Your task to perform on an android device: turn on showing notifications on the lock screen Image 0: 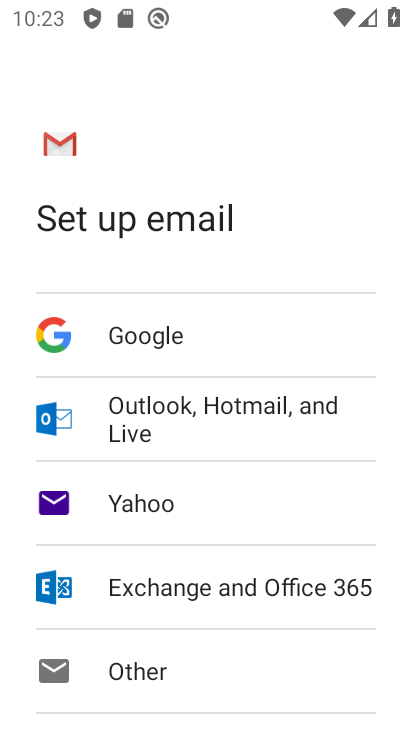
Step 0: press home button
Your task to perform on an android device: turn on showing notifications on the lock screen Image 1: 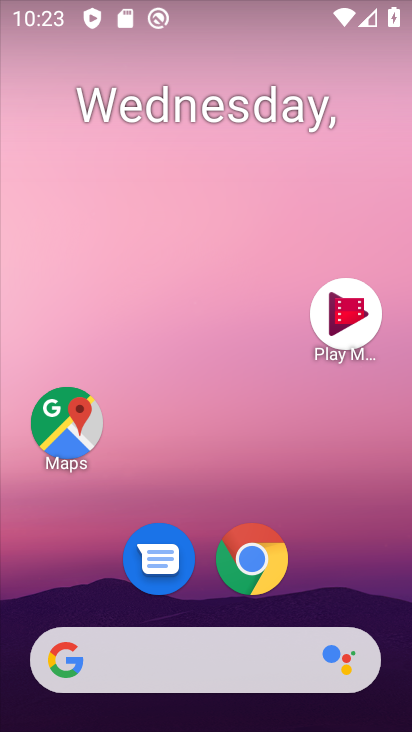
Step 1: drag from (301, 542) to (292, 131)
Your task to perform on an android device: turn on showing notifications on the lock screen Image 2: 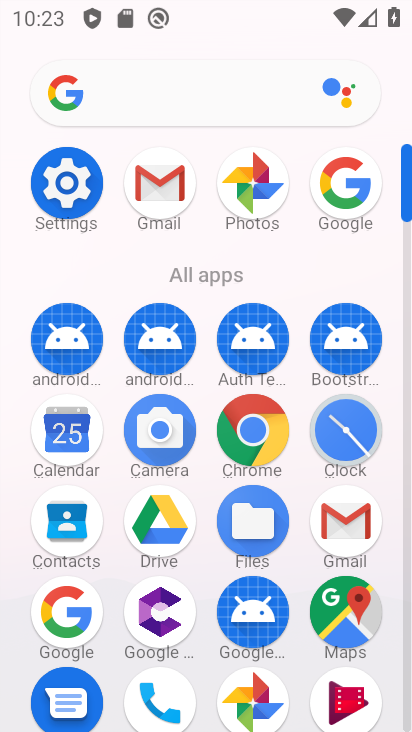
Step 2: click (76, 175)
Your task to perform on an android device: turn on showing notifications on the lock screen Image 3: 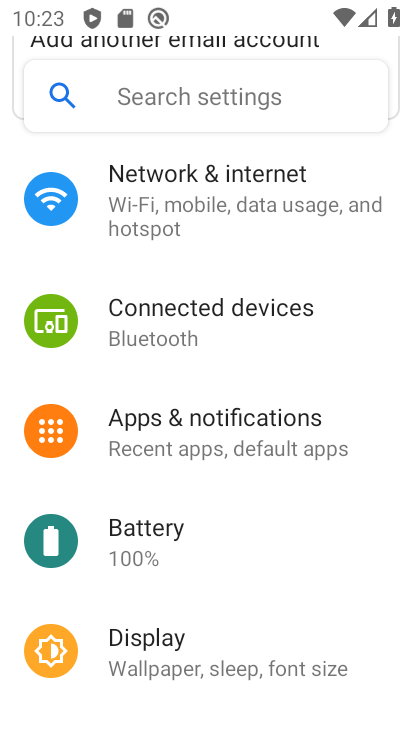
Step 3: click (240, 440)
Your task to perform on an android device: turn on showing notifications on the lock screen Image 4: 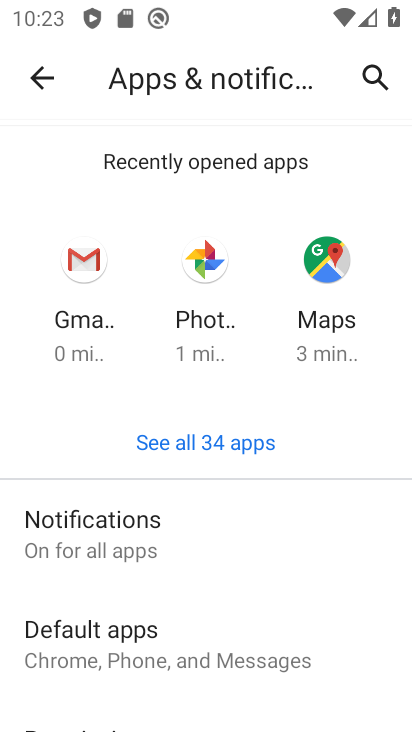
Step 4: drag from (321, 630) to (283, 324)
Your task to perform on an android device: turn on showing notifications on the lock screen Image 5: 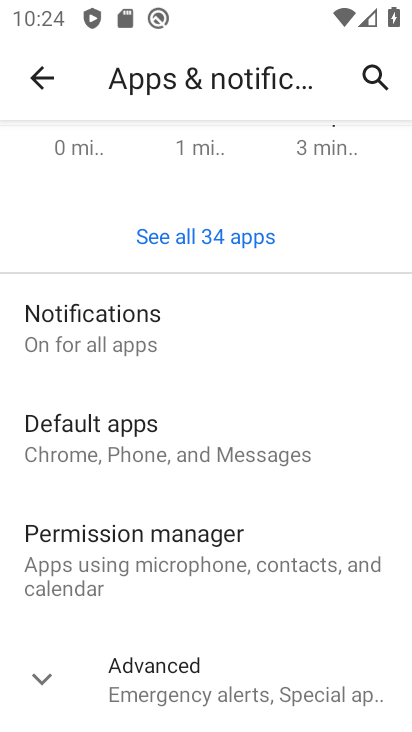
Step 5: click (151, 309)
Your task to perform on an android device: turn on showing notifications on the lock screen Image 6: 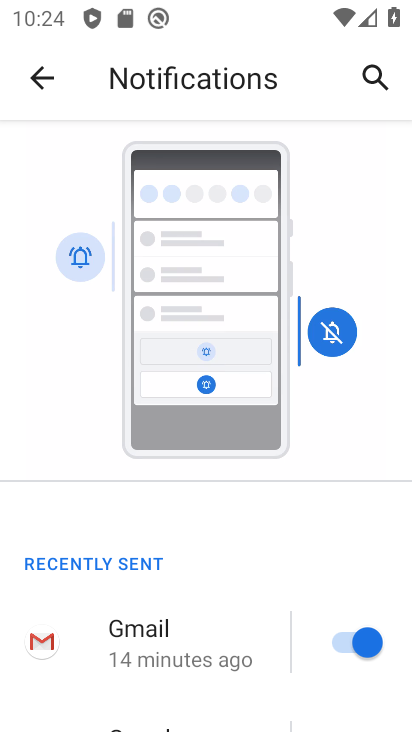
Step 6: drag from (225, 625) to (251, 352)
Your task to perform on an android device: turn on showing notifications on the lock screen Image 7: 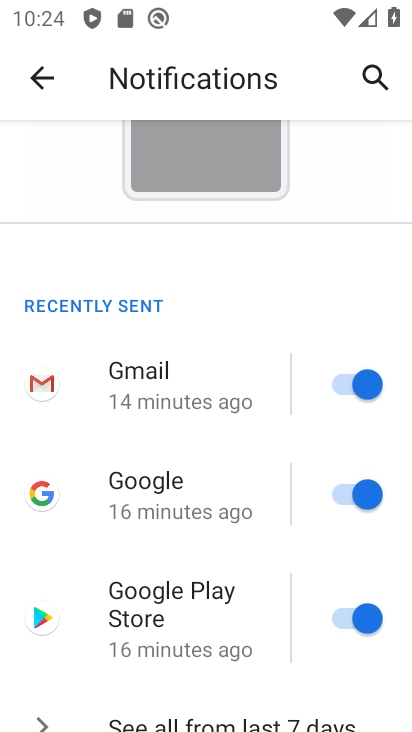
Step 7: drag from (159, 681) to (292, 386)
Your task to perform on an android device: turn on showing notifications on the lock screen Image 8: 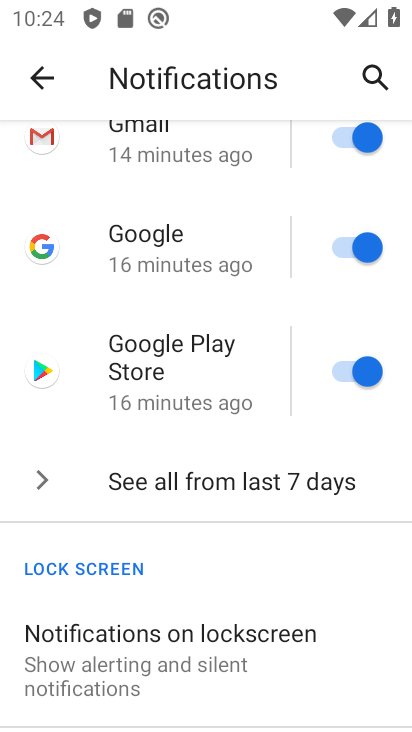
Step 8: click (153, 663)
Your task to perform on an android device: turn on showing notifications on the lock screen Image 9: 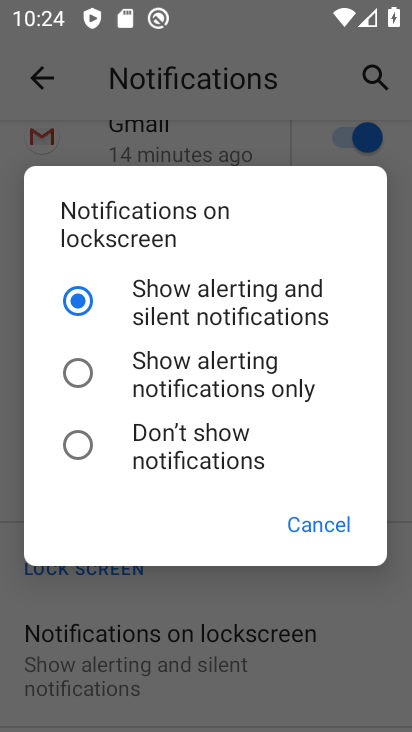
Step 9: task complete